Your task to perform on an android device: turn on javascript in the chrome app Image 0: 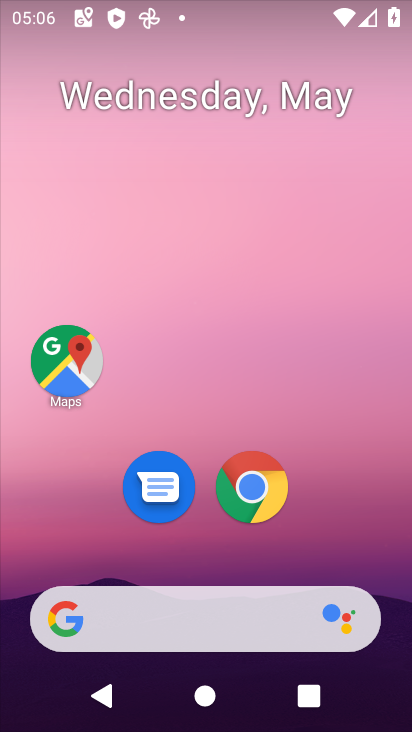
Step 0: click (269, 486)
Your task to perform on an android device: turn on javascript in the chrome app Image 1: 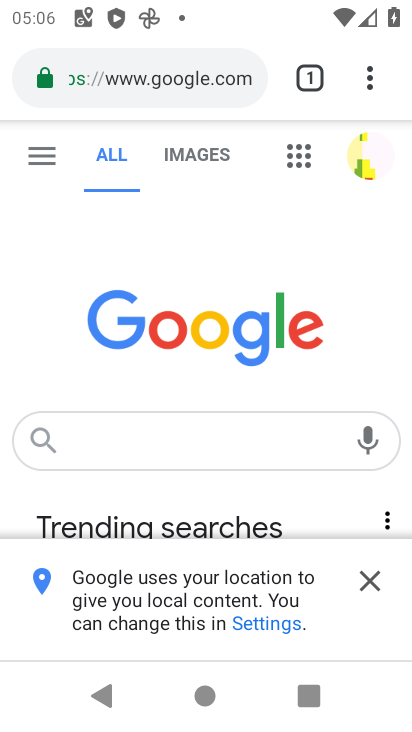
Step 1: click (383, 77)
Your task to perform on an android device: turn on javascript in the chrome app Image 2: 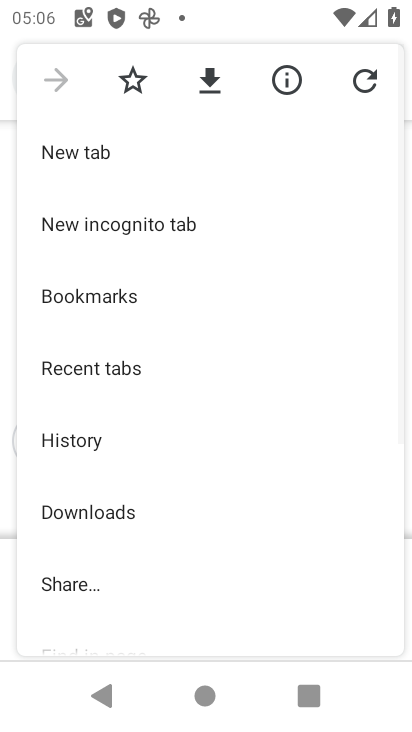
Step 2: drag from (155, 574) to (156, 382)
Your task to perform on an android device: turn on javascript in the chrome app Image 3: 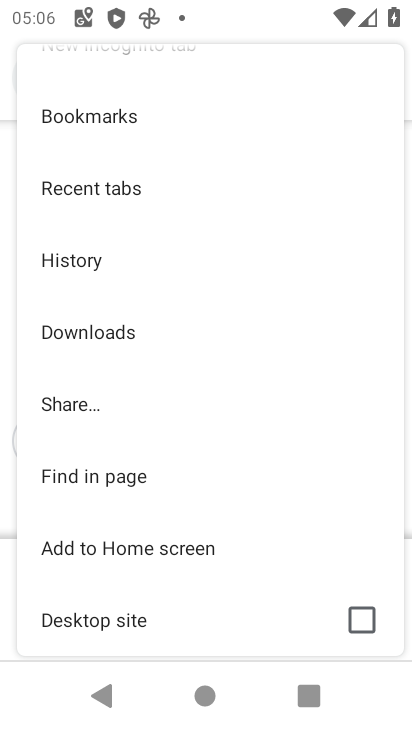
Step 3: drag from (158, 612) to (164, 296)
Your task to perform on an android device: turn on javascript in the chrome app Image 4: 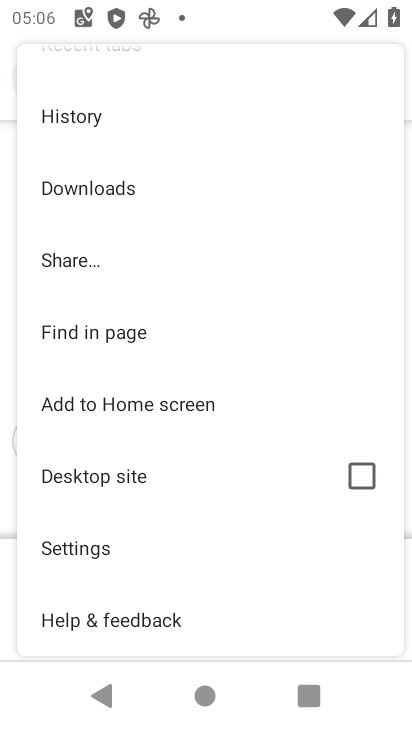
Step 4: click (114, 531)
Your task to perform on an android device: turn on javascript in the chrome app Image 5: 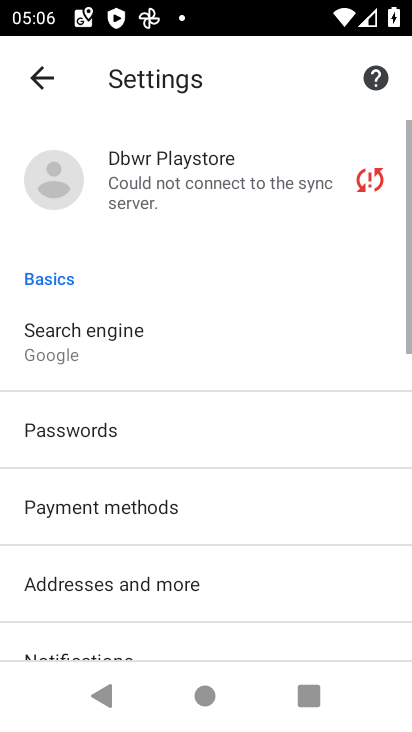
Step 5: drag from (147, 563) to (170, 243)
Your task to perform on an android device: turn on javascript in the chrome app Image 6: 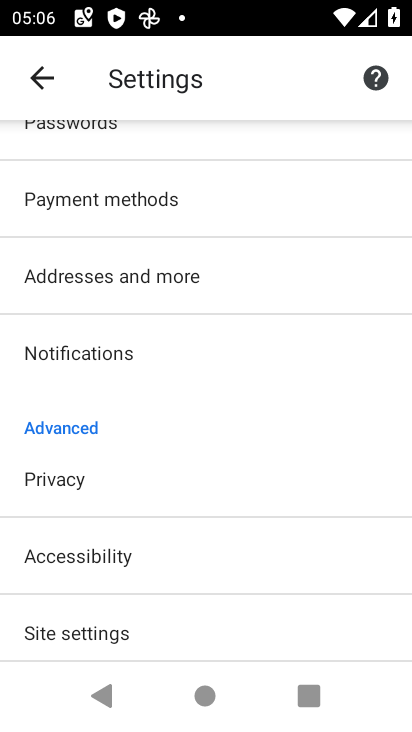
Step 6: click (109, 620)
Your task to perform on an android device: turn on javascript in the chrome app Image 7: 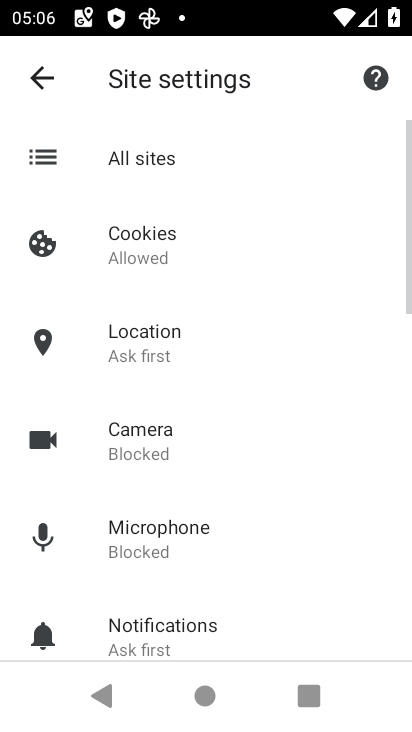
Step 7: drag from (206, 529) to (225, 261)
Your task to perform on an android device: turn on javascript in the chrome app Image 8: 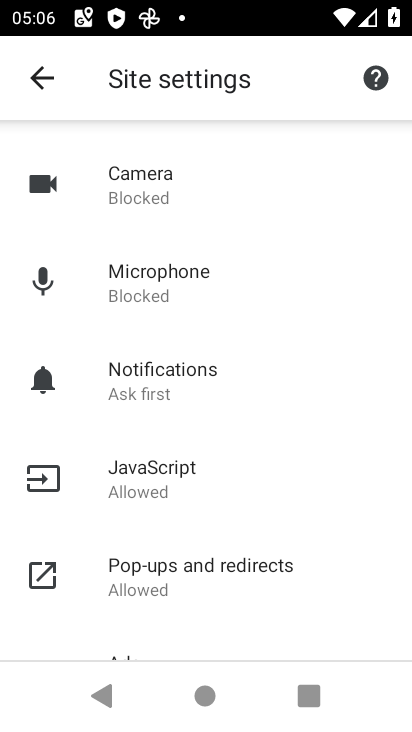
Step 8: click (252, 490)
Your task to perform on an android device: turn on javascript in the chrome app Image 9: 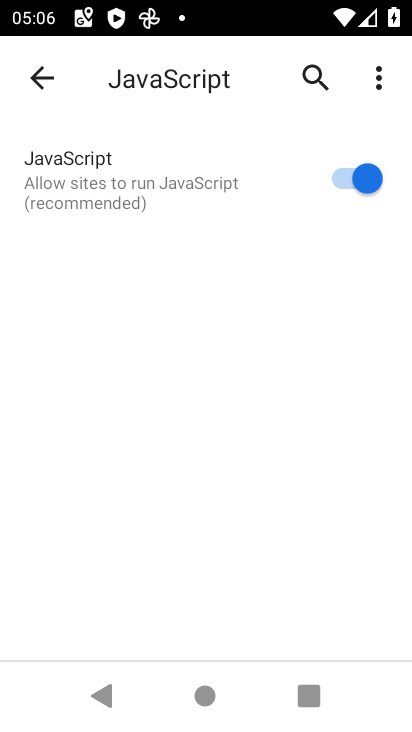
Step 9: task complete